Your task to perform on an android device: Play the last video I watched on Youtube Image 0: 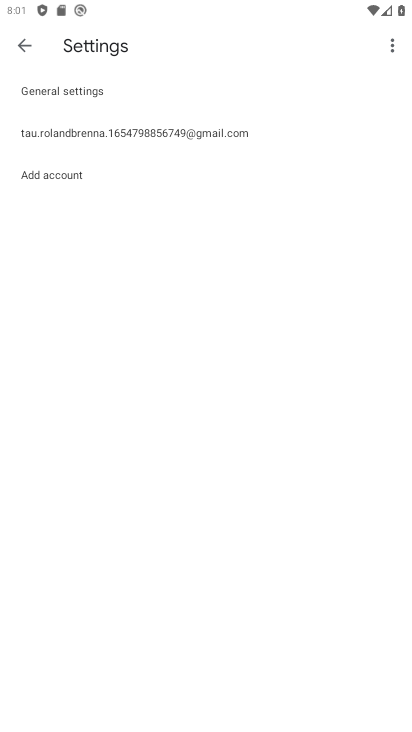
Step 0: press home button
Your task to perform on an android device: Play the last video I watched on Youtube Image 1: 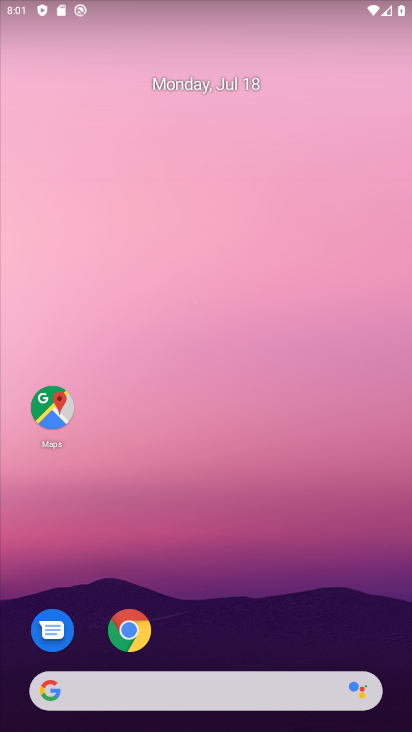
Step 1: drag from (181, 582) to (206, 55)
Your task to perform on an android device: Play the last video I watched on Youtube Image 2: 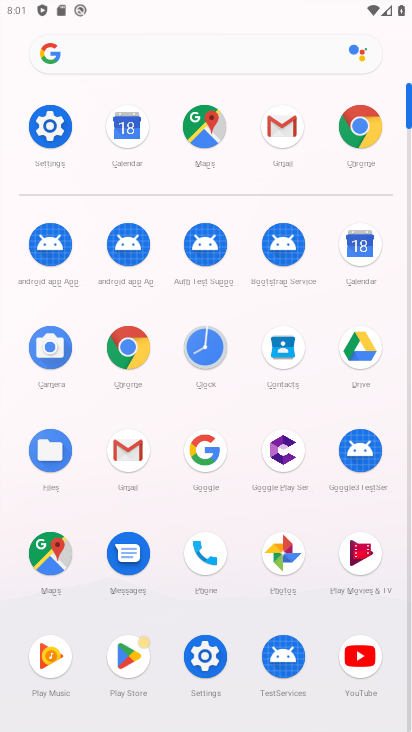
Step 2: click (356, 649)
Your task to perform on an android device: Play the last video I watched on Youtube Image 3: 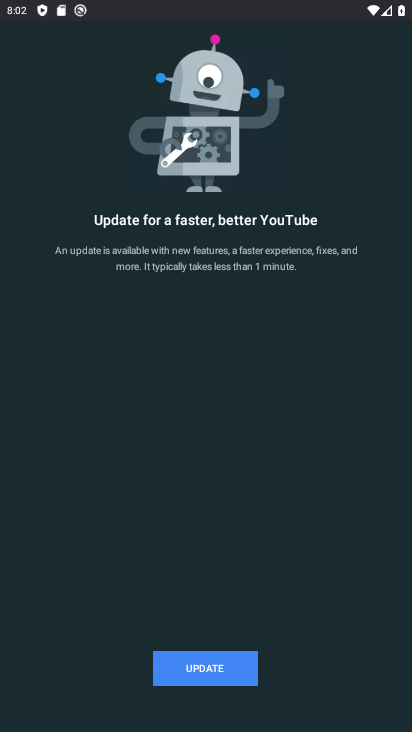
Step 3: task complete